Your task to perform on an android device: Go to internet settings Image 0: 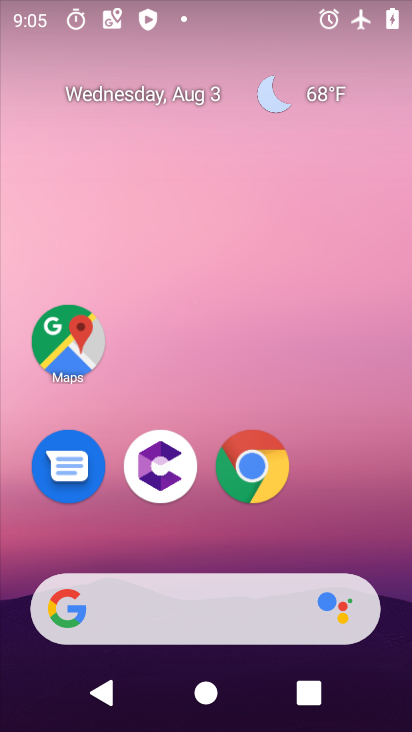
Step 0: press home button
Your task to perform on an android device: Go to internet settings Image 1: 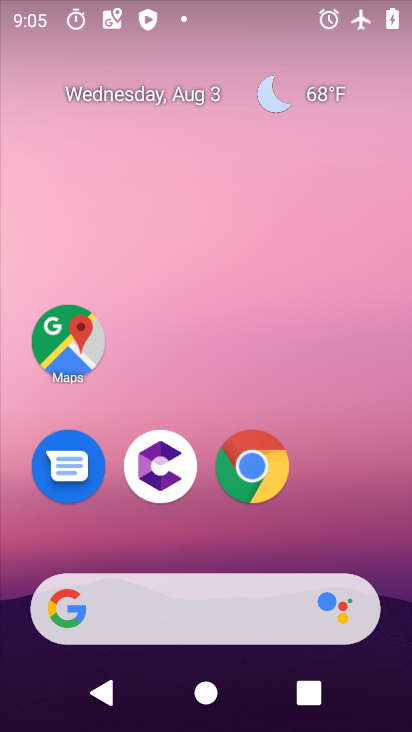
Step 1: drag from (328, 464) to (232, 69)
Your task to perform on an android device: Go to internet settings Image 2: 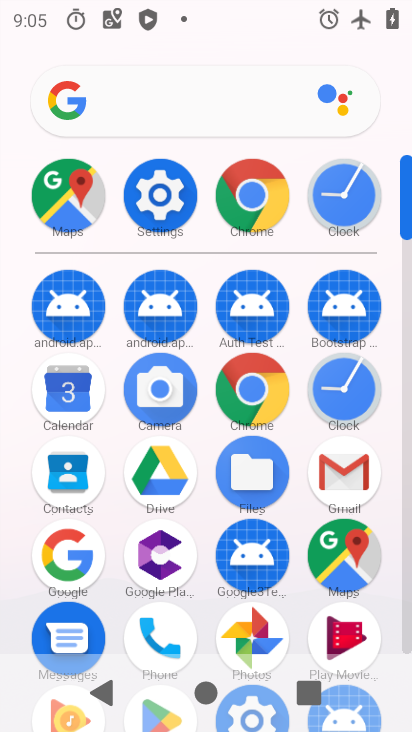
Step 2: click (163, 193)
Your task to perform on an android device: Go to internet settings Image 3: 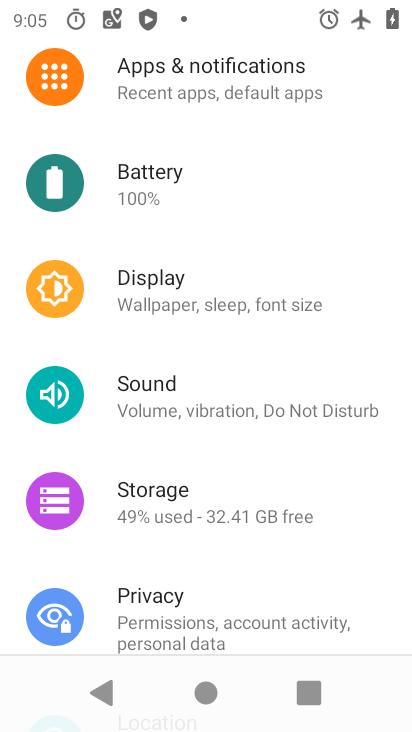
Step 3: drag from (257, 137) to (232, 534)
Your task to perform on an android device: Go to internet settings Image 4: 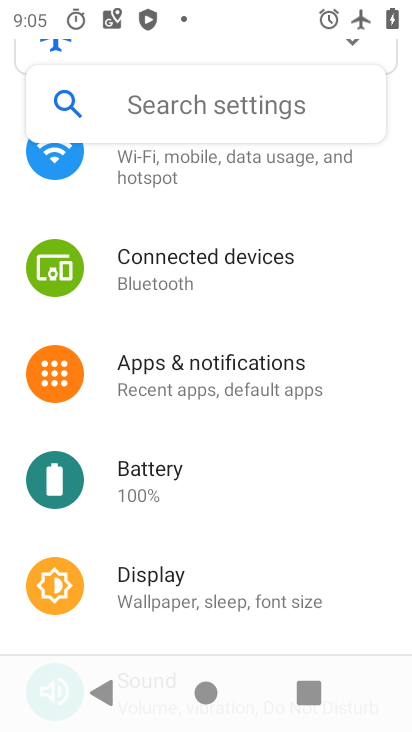
Step 4: click (148, 176)
Your task to perform on an android device: Go to internet settings Image 5: 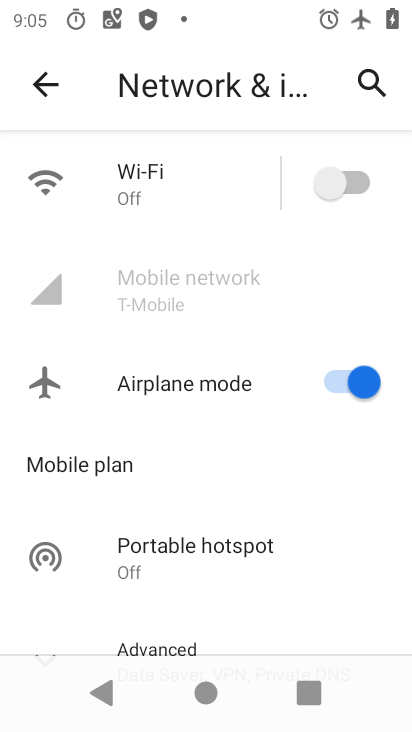
Step 5: drag from (357, 591) to (208, 184)
Your task to perform on an android device: Go to internet settings Image 6: 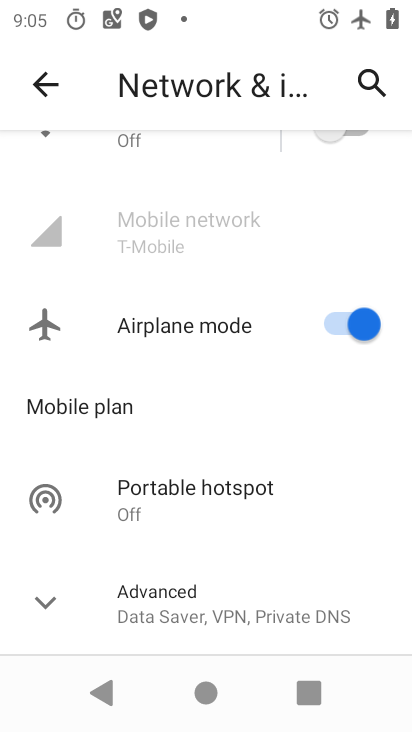
Step 6: click (247, 606)
Your task to perform on an android device: Go to internet settings Image 7: 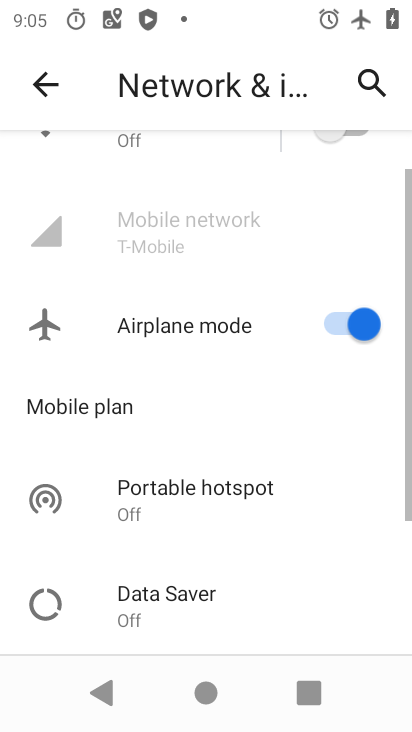
Step 7: task complete